Your task to perform on an android device: turn on javascript in the chrome app Image 0: 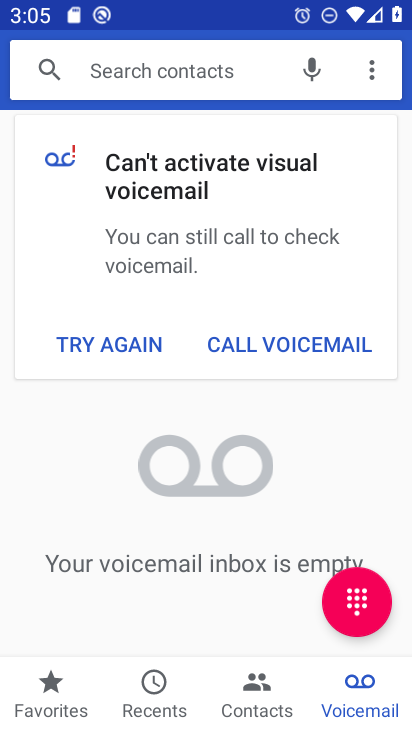
Step 0: drag from (213, 586) to (194, 307)
Your task to perform on an android device: turn on javascript in the chrome app Image 1: 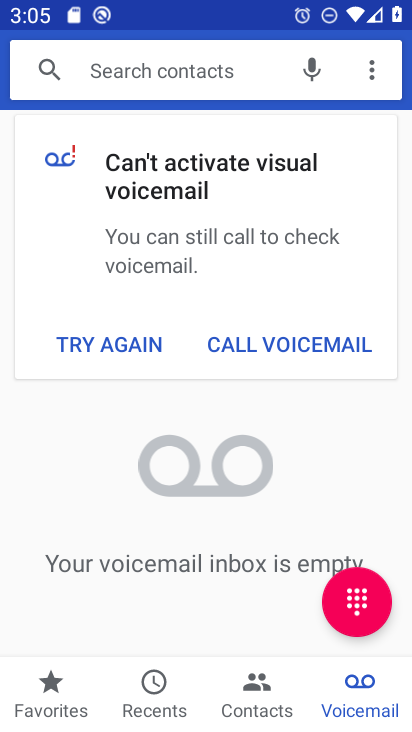
Step 1: press home button
Your task to perform on an android device: turn on javascript in the chrome app Image 2: 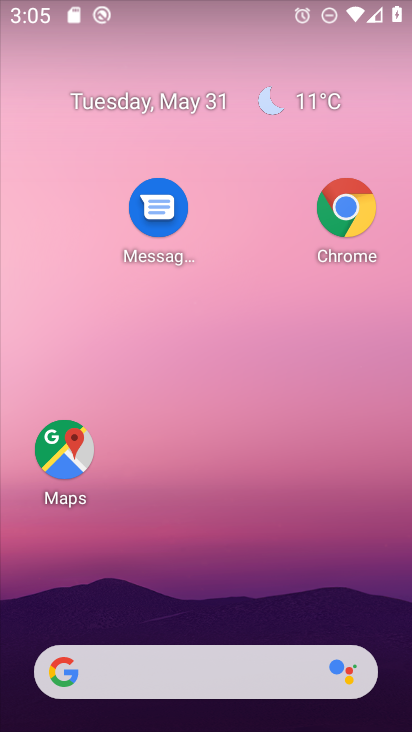
Step 2: drag from (221, 564) to (241, 142)
Your task to perform on an android device: turn on javascript in the chrome app Image 3: 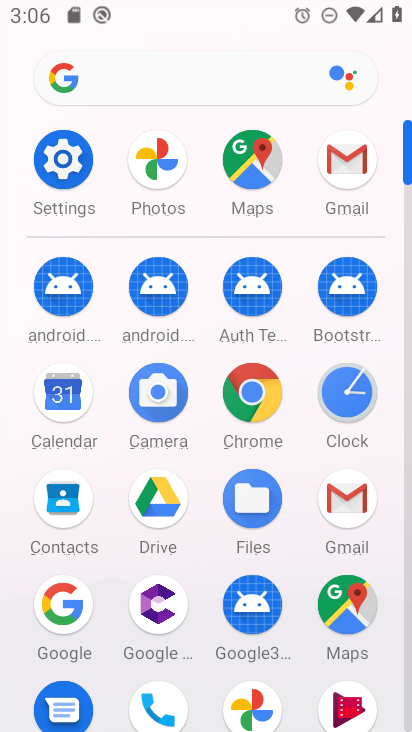
Step 3: click (251, 405)
Your task to perform on an android device: turn on javascript in the chrome app Image 4: 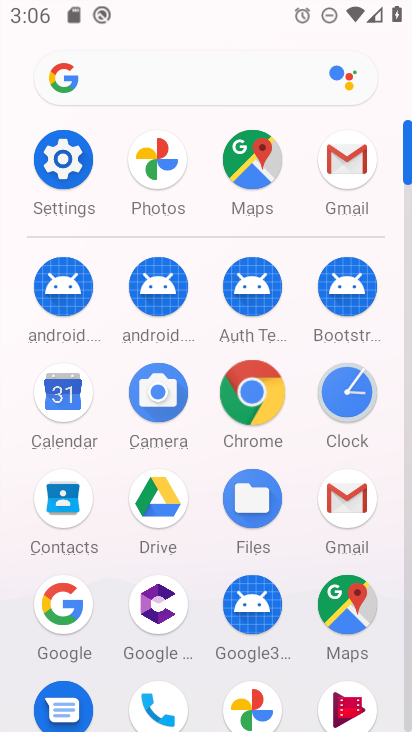
Step 4: click (250, 405)
Your task to perform on an android device: turn on javascript in the chrome app Image 5: 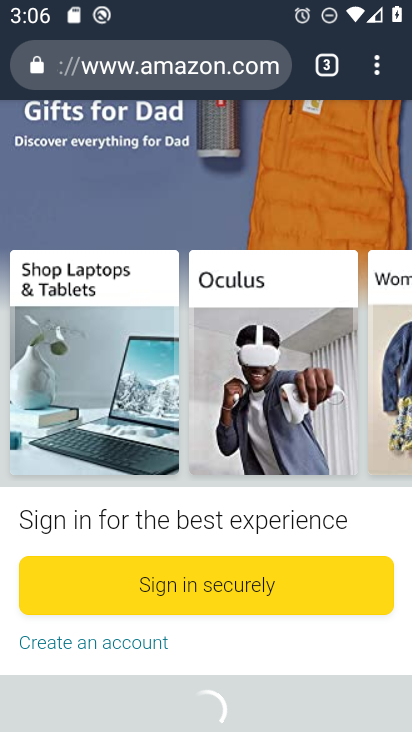
Step 5: click (389, 58)
Your task to perform on an android device: turn on javascript in the chrome app Image 6: 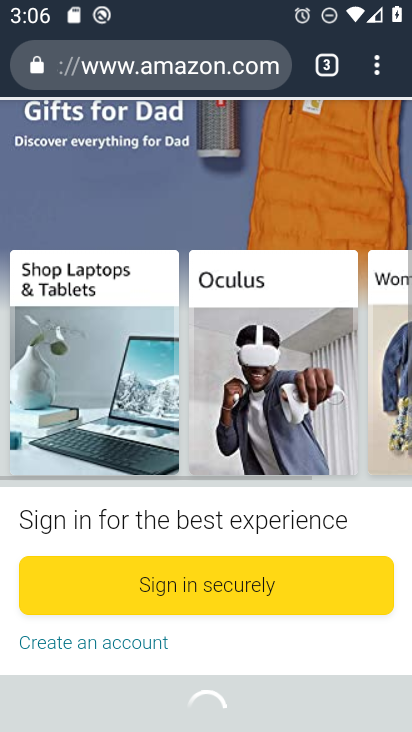
Step 6: click (367, 85)
Your task to perform on an android device: turn on javascript in the chrome app Image 7: 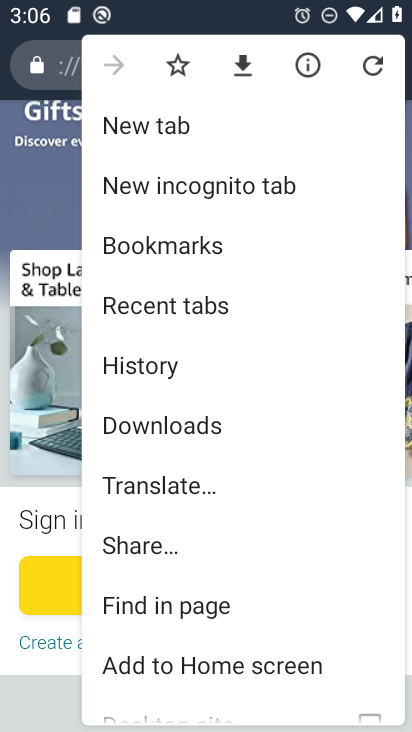
Step 7: drag from (271, 587) to (248, 169)
Your task to perform on an android device: turn on javascript in the chrome app Image 8: 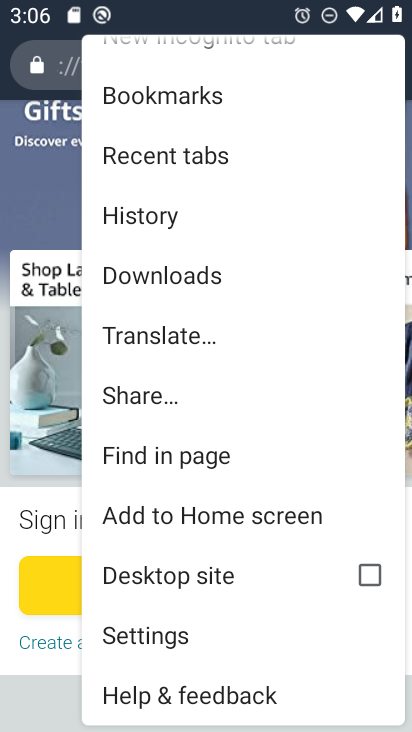
Step 8: click (212, 637)
Your task to perform on an android device: turn on javascript in the chrome app Image 9: 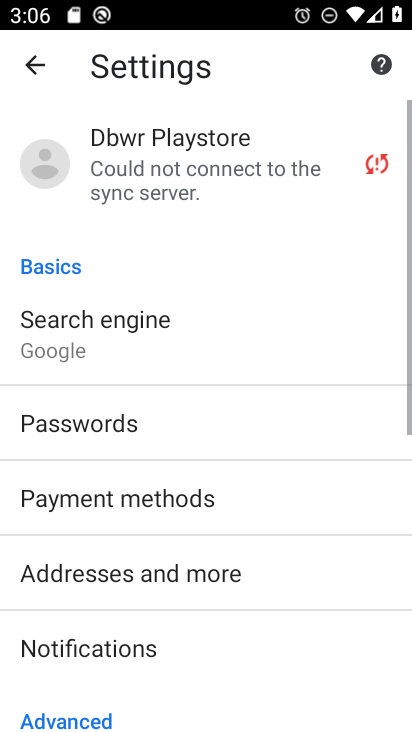
Step 9: drag from (186, 481) to (206, 1)
Your task to perform on an android device: turn on javascript in the chrome app Image 10: 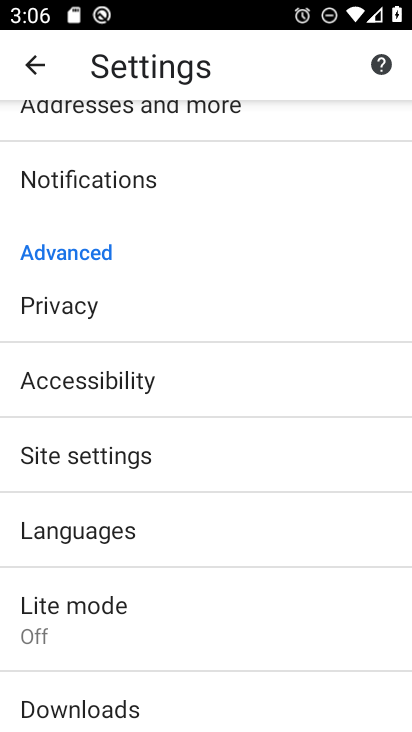
Step 10: click (90, 458)
Your task to perform on an android device: turn on javascript in the chrome app Image 11: 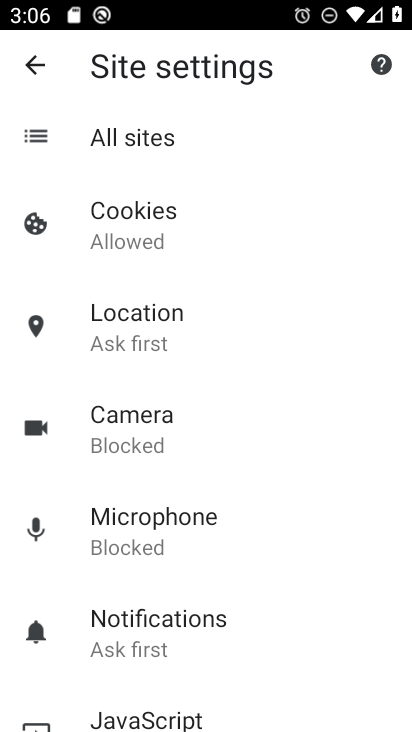
Step 11: drag from (116, 676) to (147, 181)
Your task to perform on an android device: turn on javascript in the chrome app Image 12: 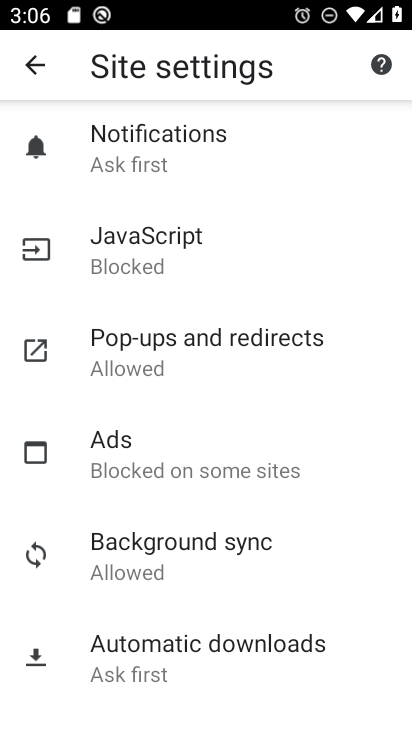
Step 12: click (199, 242)
Your task to perform on an android device: turn on javascript in the chrome app Image 13: 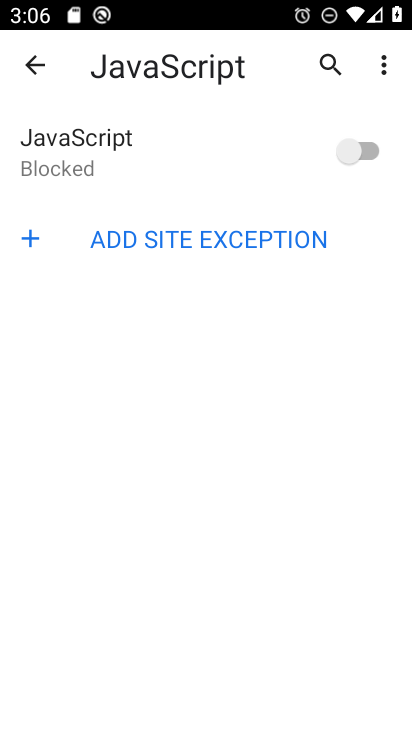
Step 13: click (210, 182)
Your task to perform on an android device: turn on javascript in the chrome app Image 14: 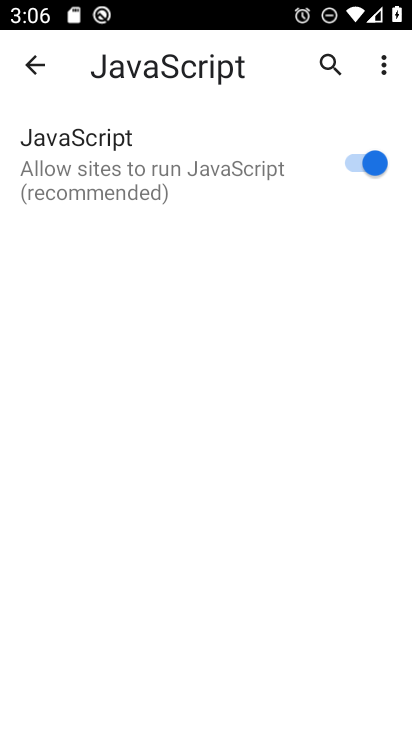
Step 14: task complete